Your task to perform on an android device: turn off location Image 0: 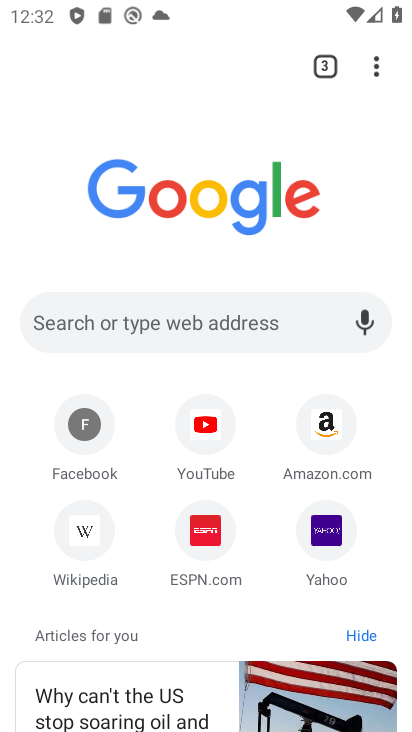
Step 0: press home button
Your task to perform on an android device: turn off location Image 1: 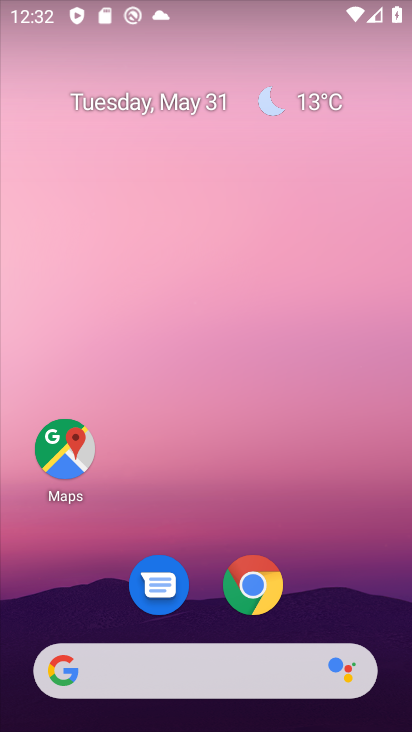
Step 1: drag from (245, 508) to (246, 45)
Your task to perform on an android device: turn off location Image 2: 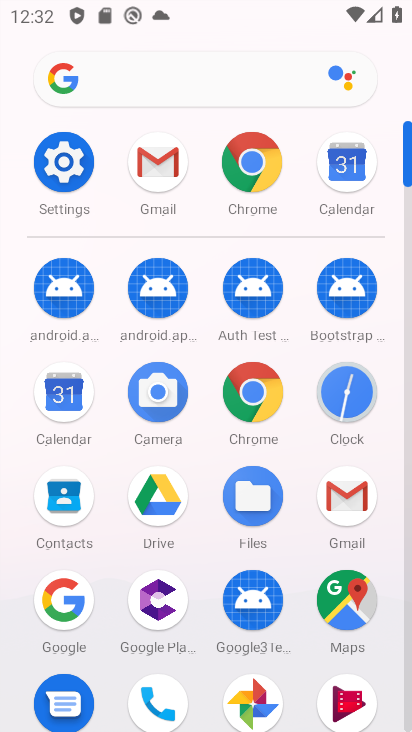
Step 2: click (66, 164)
Your task to perform on an android device: turn off location Image 3: 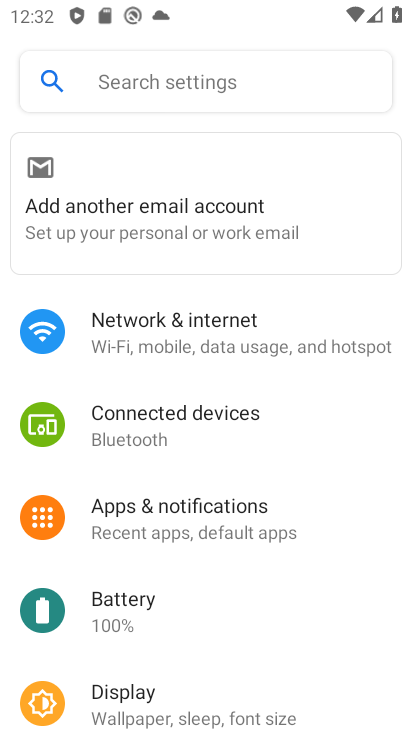
Step 3: drag from (224, 559) to (241, 139)
Your task to perform on an android device: turn off location Image 4: 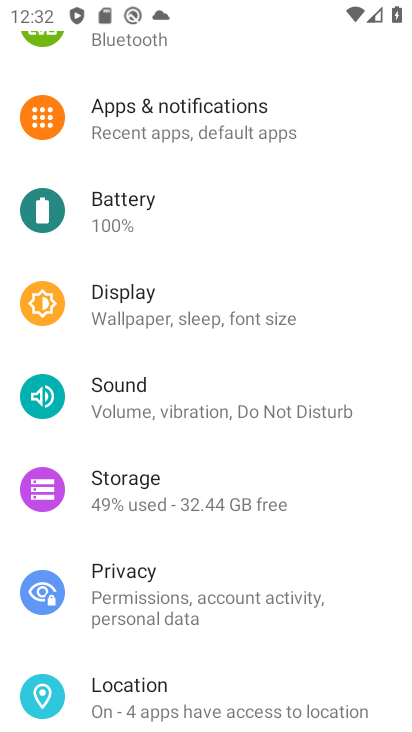
Step 4: click (223, 695)
Your task to perform on an android device: turn off location Image 5: 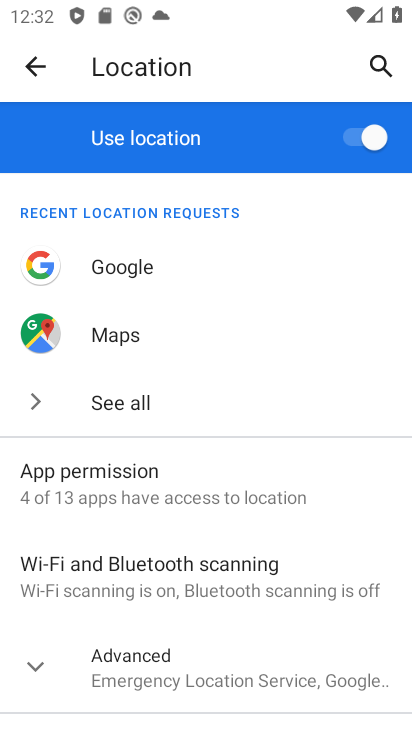
Step 5: click (355, 137)
Your task to perform on an android device: turn off location Image 6: 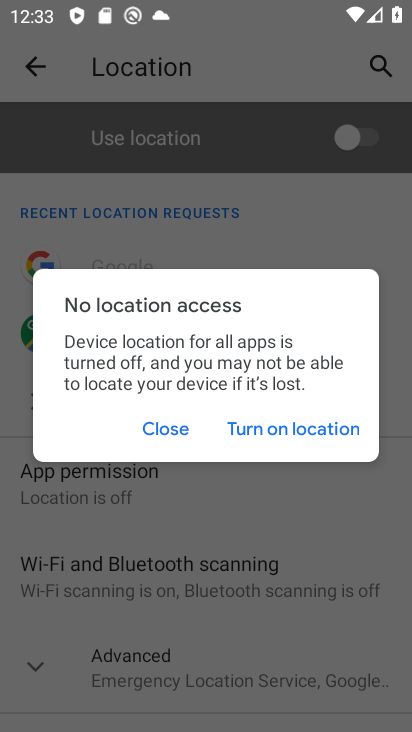
Step 6: task complete